Your task to perform on an android device: Add "bose soundsport free" to the cart on bestbuy, then select checkout. Image 0: 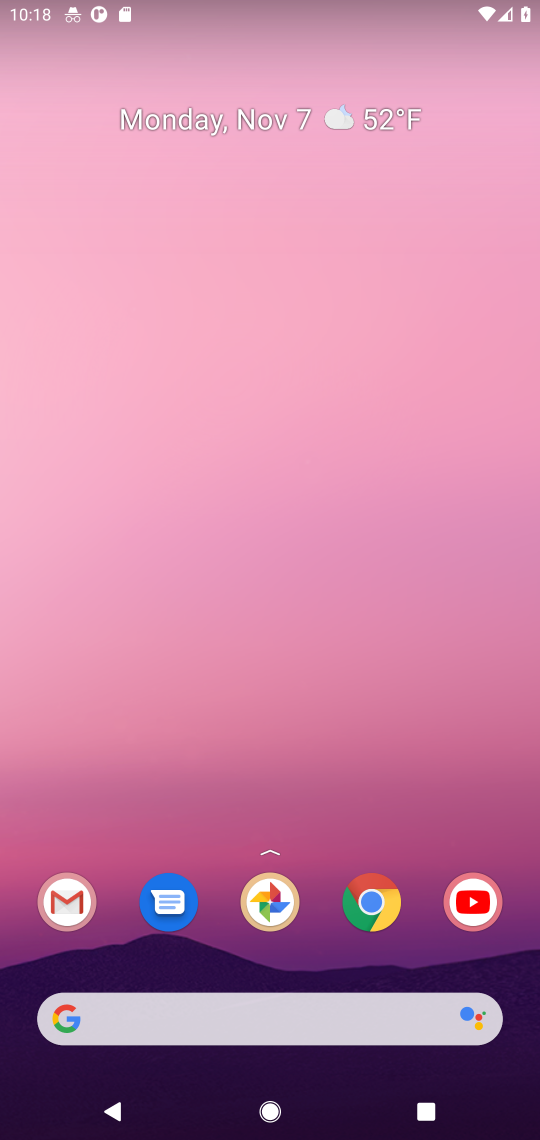
Step 0: click (368, 905)
Your task to perform on an android device: Add "bose soundsport free" to the cart on bestbuy, then select checkout. Image 1: 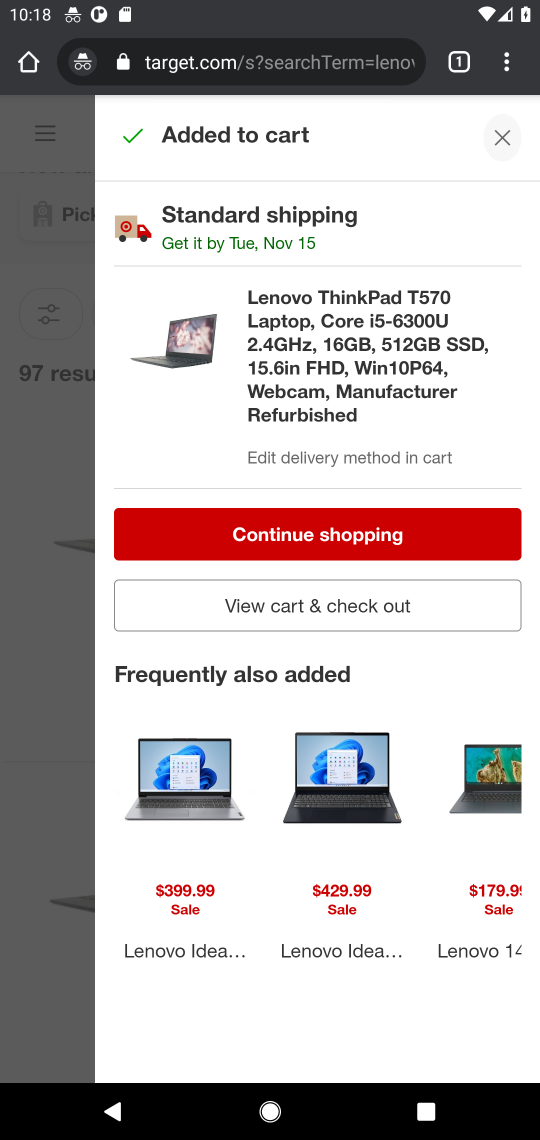
Step 1: click (226, 67)
Your task to perform on an android device: Add "bose soundsport free" to the cart on bestbuy, then select checkout. Image 2: 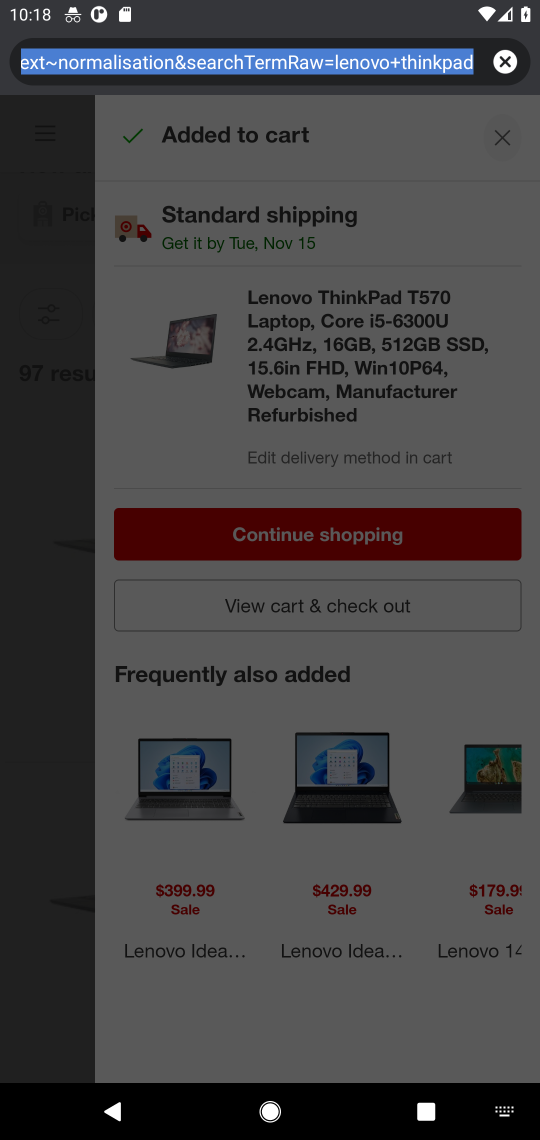
Step 2: type "bestbuy.com"
Your task to perform on an android device: Add "bose soundsport free" to the cart on bestbuy, then select checkout. Image 3: 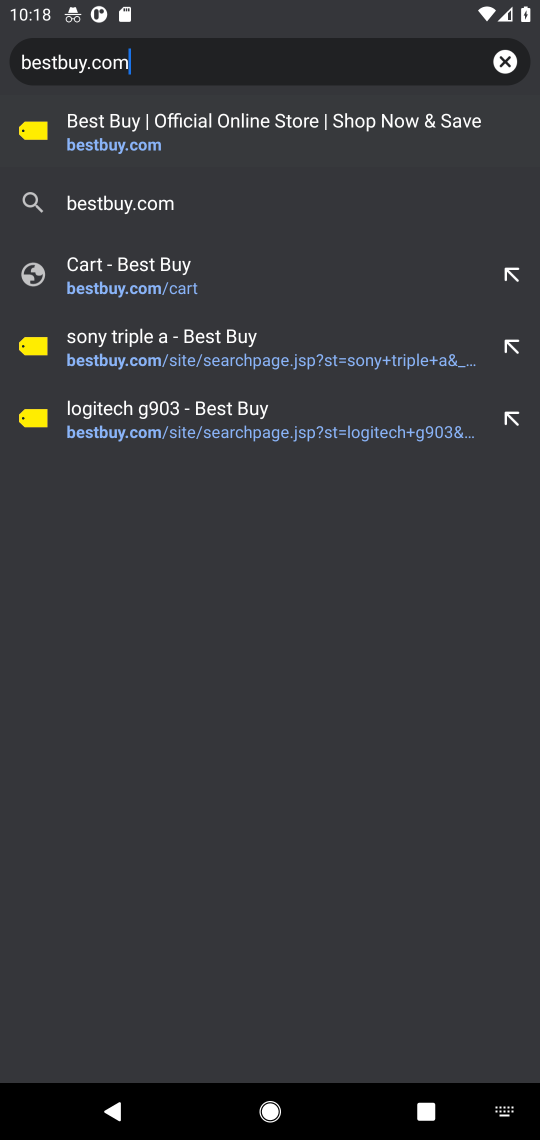
Step 3: click (93, 134)
Your task to perform on an android device: Add "bose soundsport free" to the cart on bestbuy, then select checkout. Image 4: 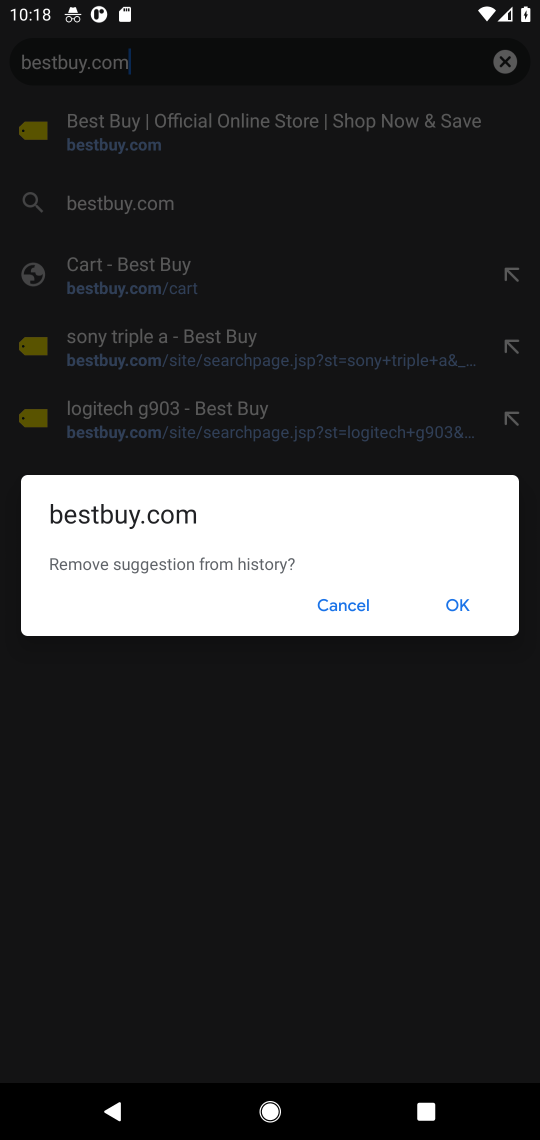
Step 4: click (335, 603)
Your task to perform on an android device: Add "bose soundsport free" to the cart on bestbuy, then select checkout. Image 5: 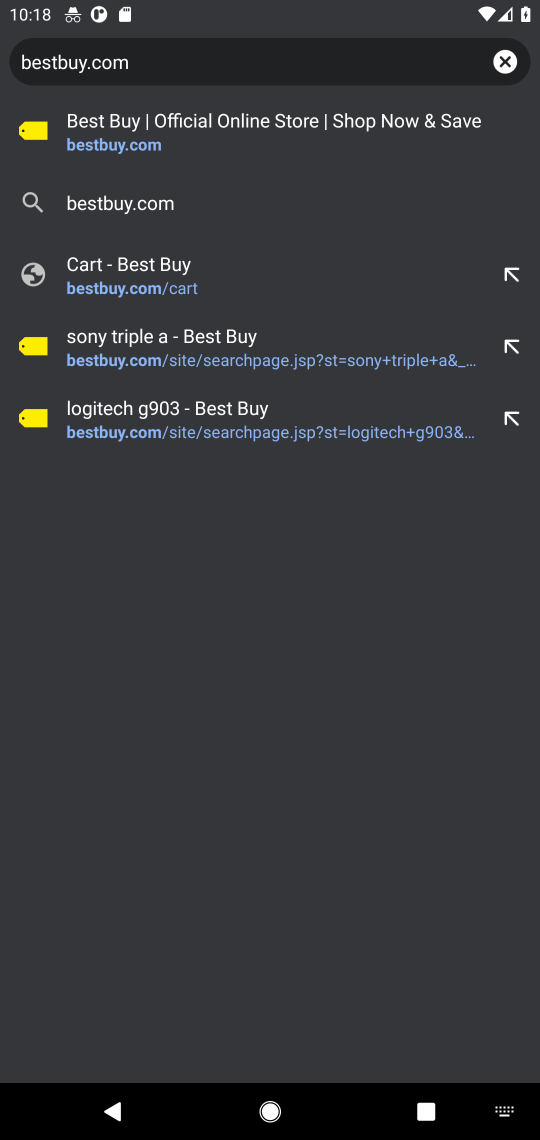
Step 5: click (112, 154)
Your task to perform on an android device: Add "bose soundsport free" to the cart on bestbuy, then select checkout. Image 6: 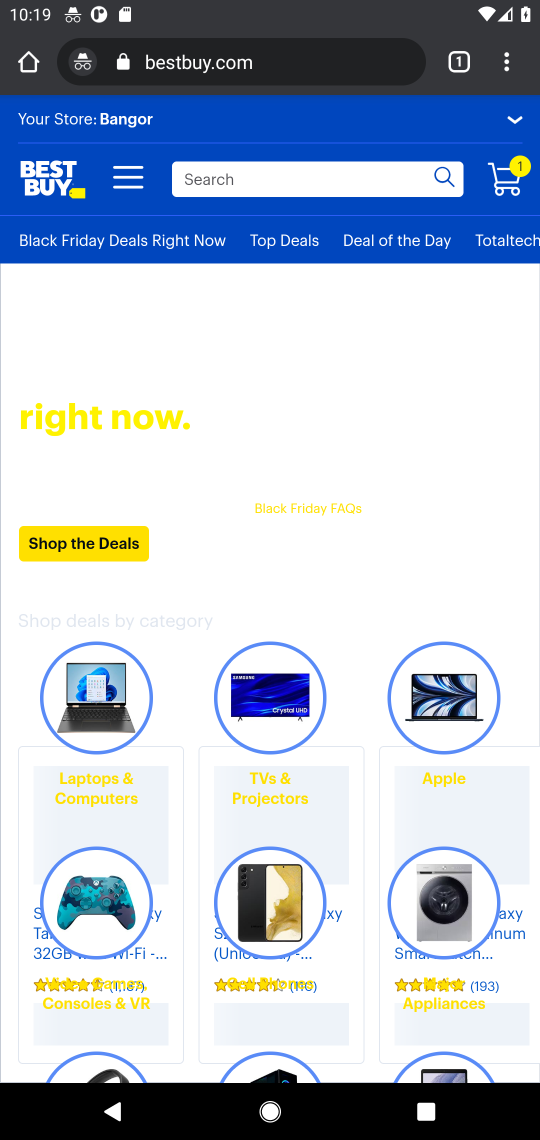
Step 6: click (213, 178)
Your task to perform on an android device: Add "bose soundsport free" to the cart on bestbuy, then select checkout. Image 7: 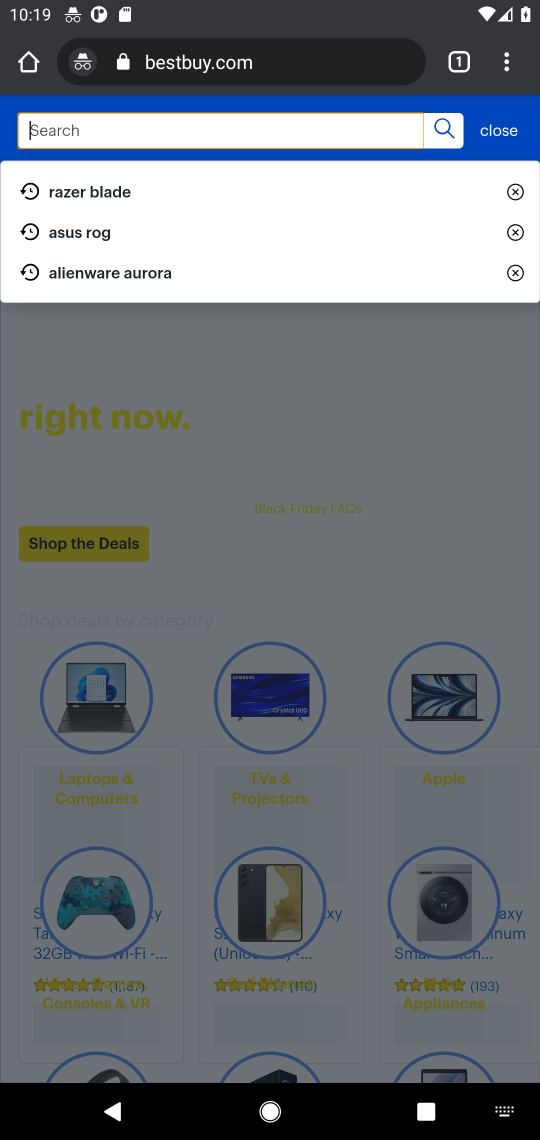
Step 7: type "bose soundsport free"
Your task to perform on an android device: Add "bose soundsport free" to the cart on bestbuy, then select checkout. Image 8: 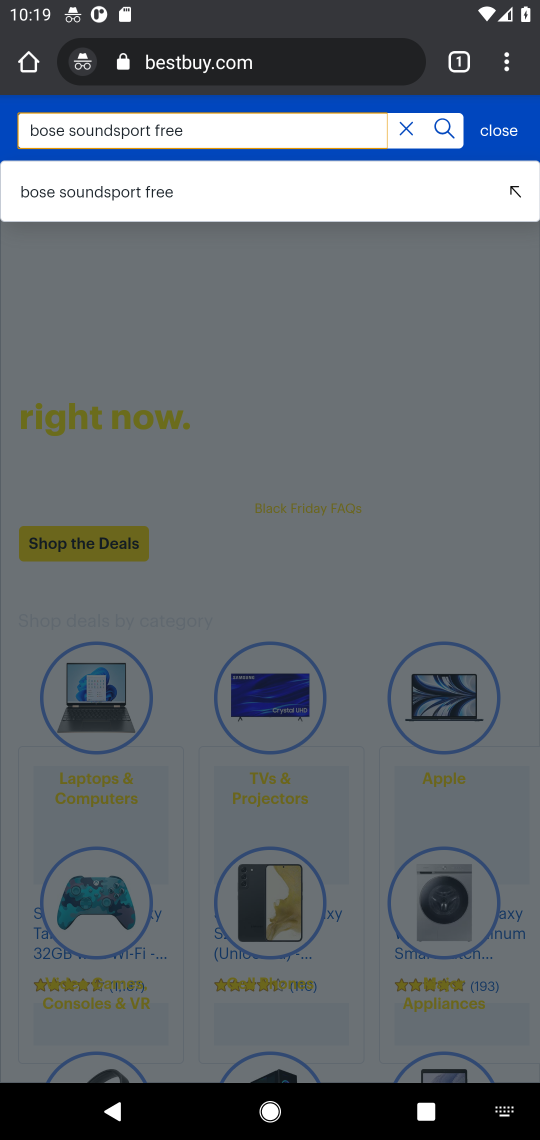
Step 8: click (85, 193)
Your task to perform on an android device: Add "bose soundsport free" to the cart on bestbuy, then select checkout. Image 9: 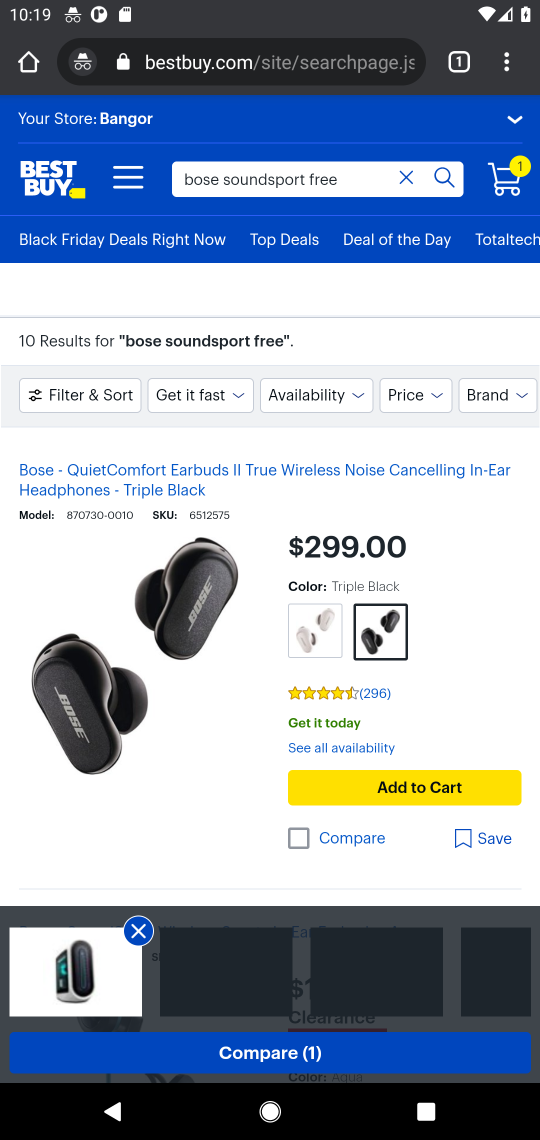
Step 9: drag from (178, 760) to (173, 451)
Your task to perform on an android device: Add "bose soundsport free" to the cart on bestbuy, then select checkout. Image 10: 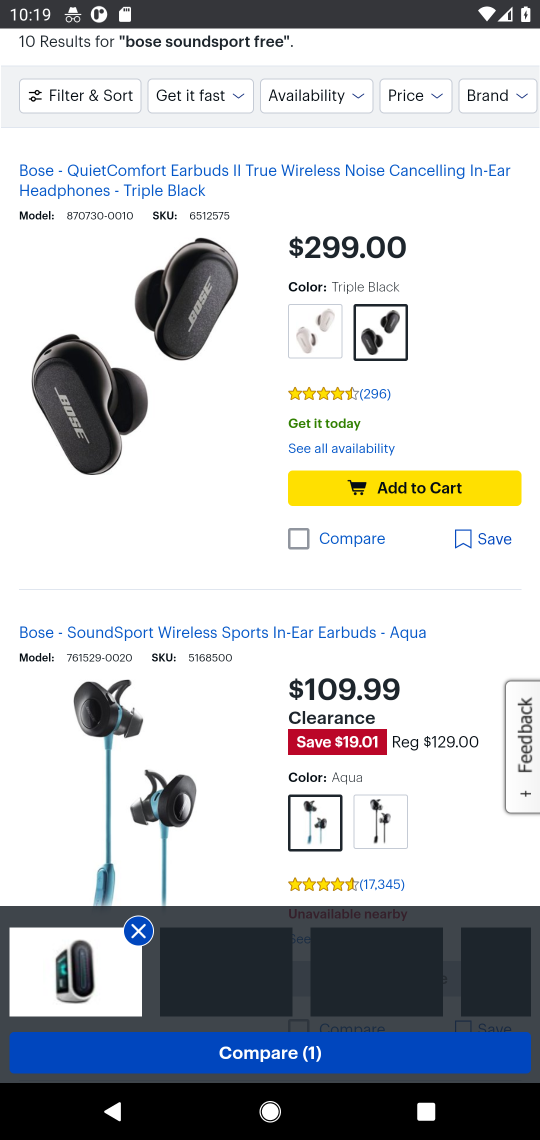
Step 10: drag from (166, 754) to (157, 475)
Your task to perform on an android device: Add "bose soundsport free" to the cart on bestbuy, then select checkout. Image 11: 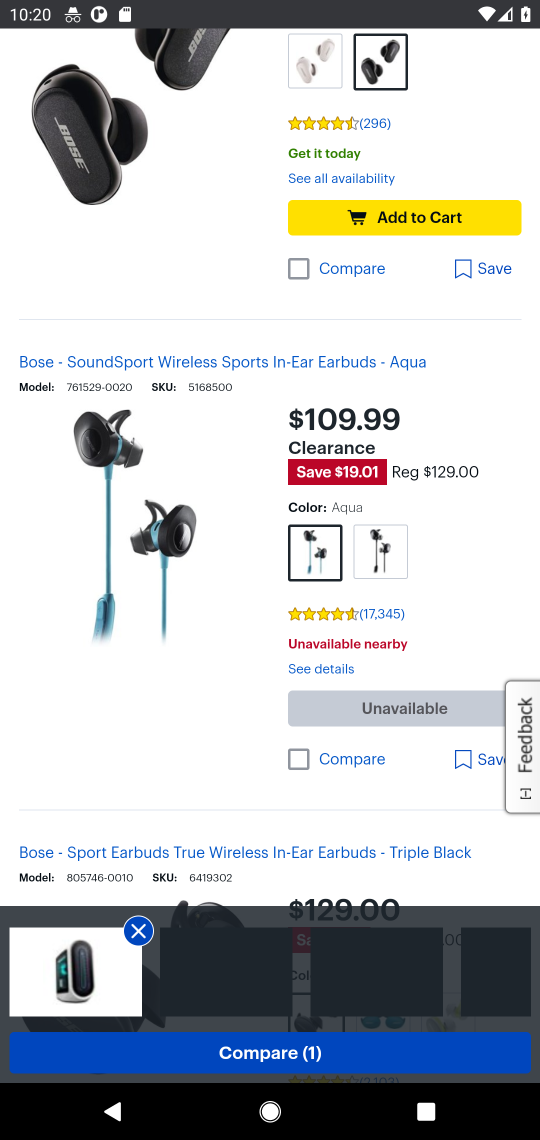
Step 11: drag from (179, 596) to (220, 134)
Your task to perform on an android device: Add "bose soundsport free" to the cart on bestbuy, then select checkout. Image 12: 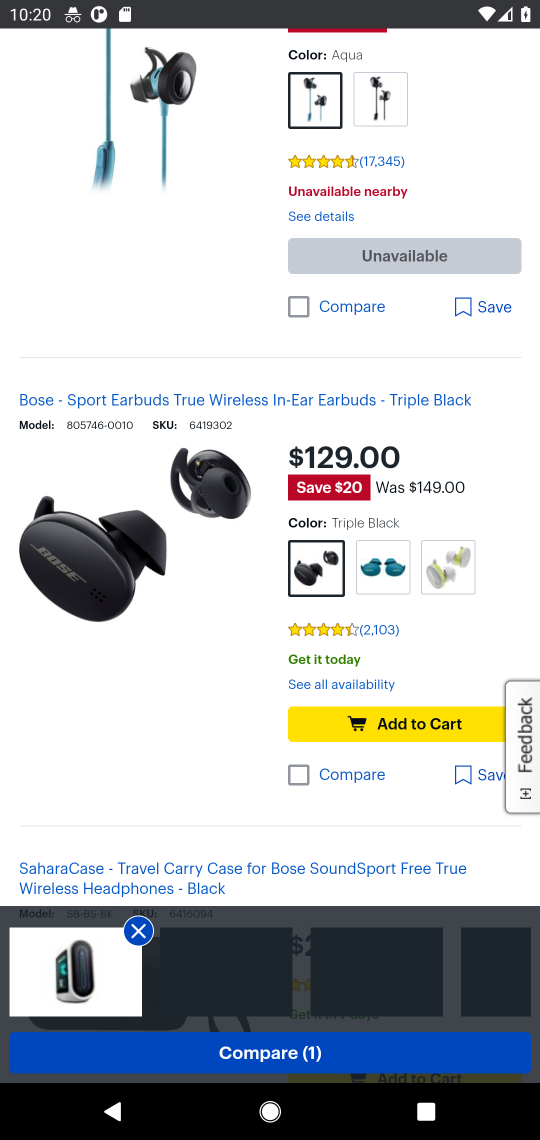
Step 12: drag from (179, 668) to (172, 162)
Your task to perform on an android device: Add "bose soundsport free" to the cart on bestbuy, then select checkout. Image 13: 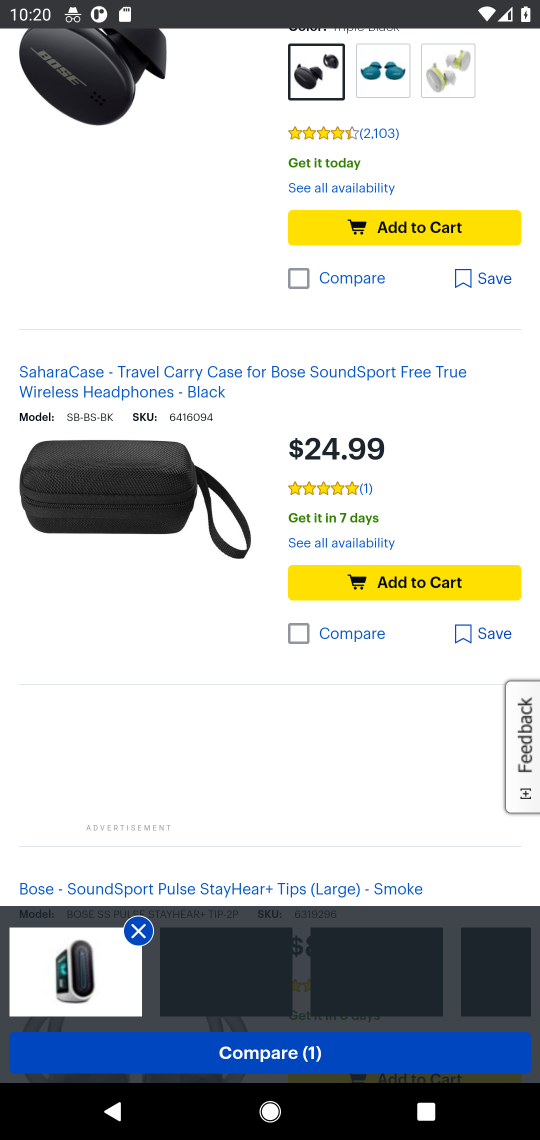
Step 13: drag from (139, 588) to (119, 131)
Your task to perform on an android device: Add "bose soundsport free" to the cart on bestbuy, then select checkout. Image 14: 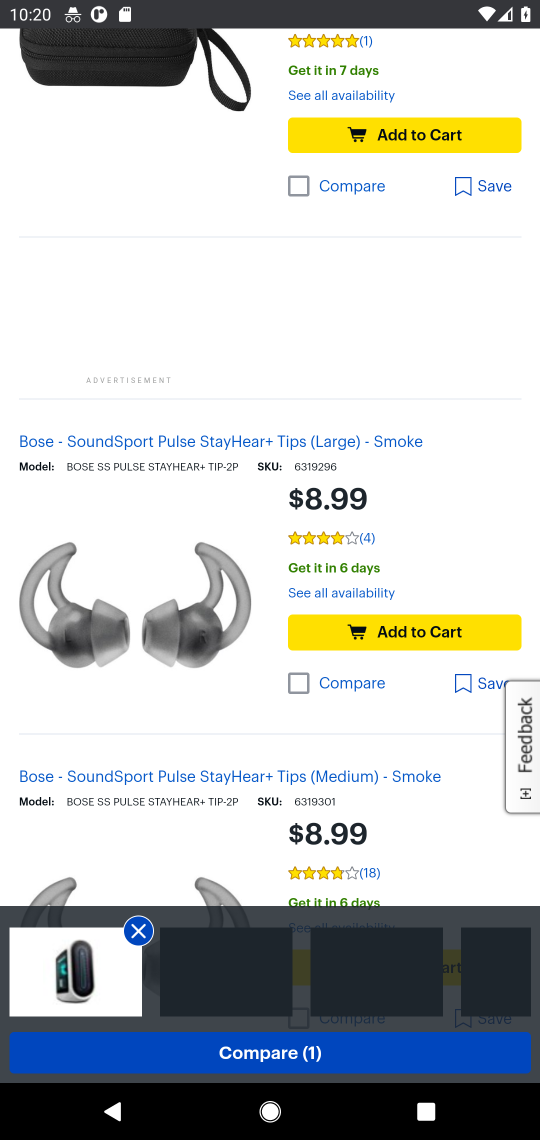
Step 14: drag from (140, 622) to (116, 346)
Your task to perform on an android device: Add "bose soundsport free" to the cart on bestbuy, then select checkout. Image 15: 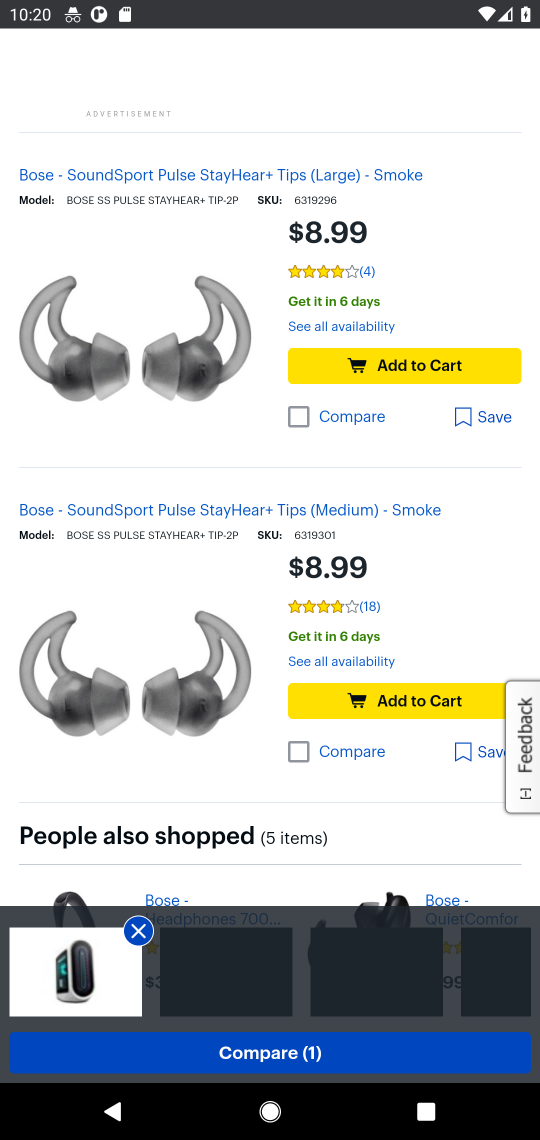
Step 15: drag from (100, 687) to (154, 269)
Your task to perform on an android device: Add "bose soundsport free" to the cart on bestbuy, then select checkout. Image 16: 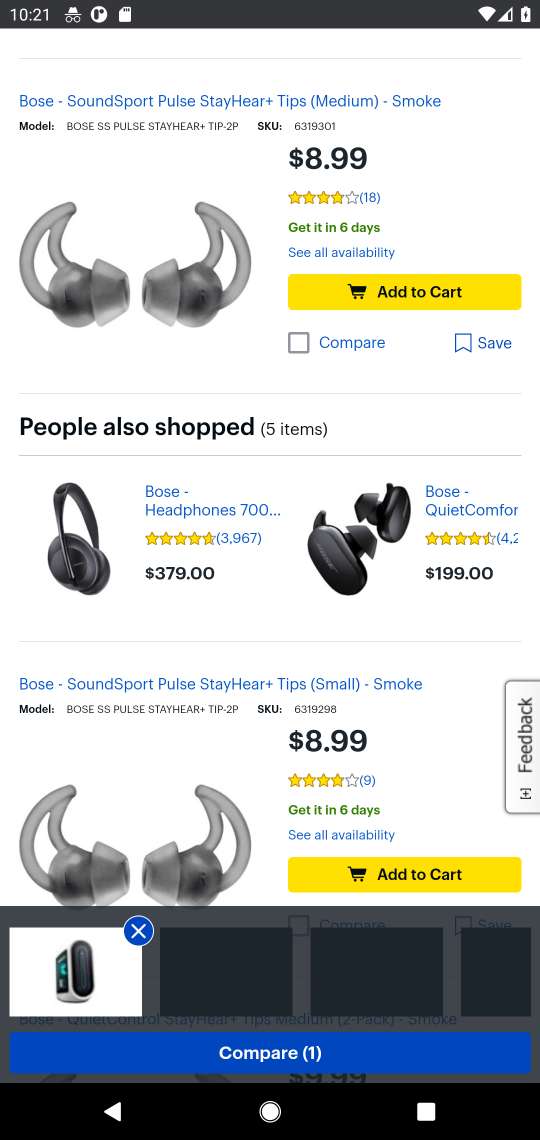
Step 16: drag from (142, 784) to (148, 187)
Your task to perform on an android device: Add "bose soundsport free" to the cart on bestbuy, then select checkout. Image 17: 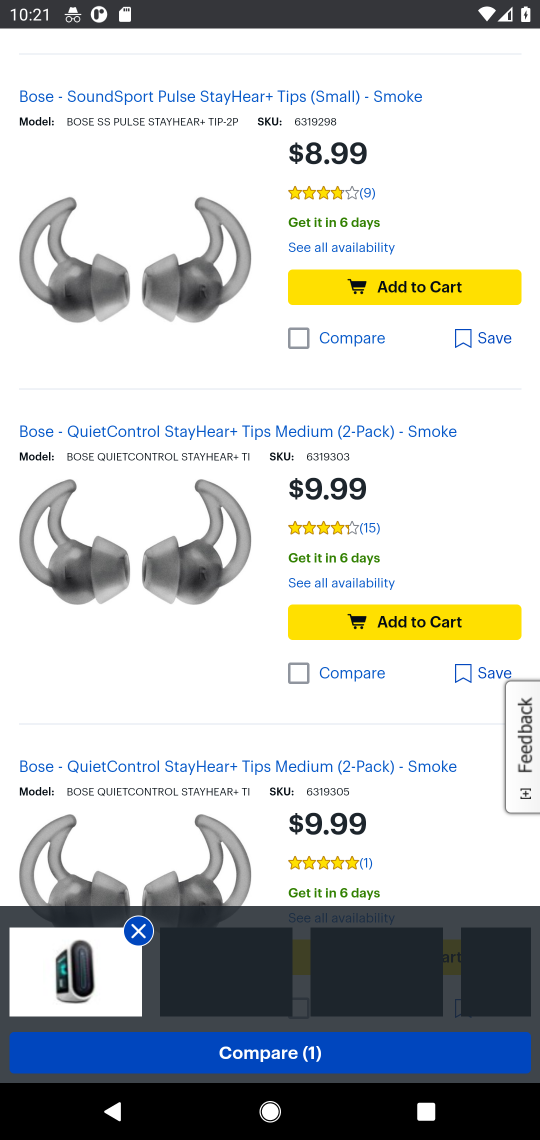
Step 17: drag from (115, 810) to (135, 263)
Your task to perform on an android device: Add "bose soundsport free" to the cart on bestbuy, then select checkout. Image 18: 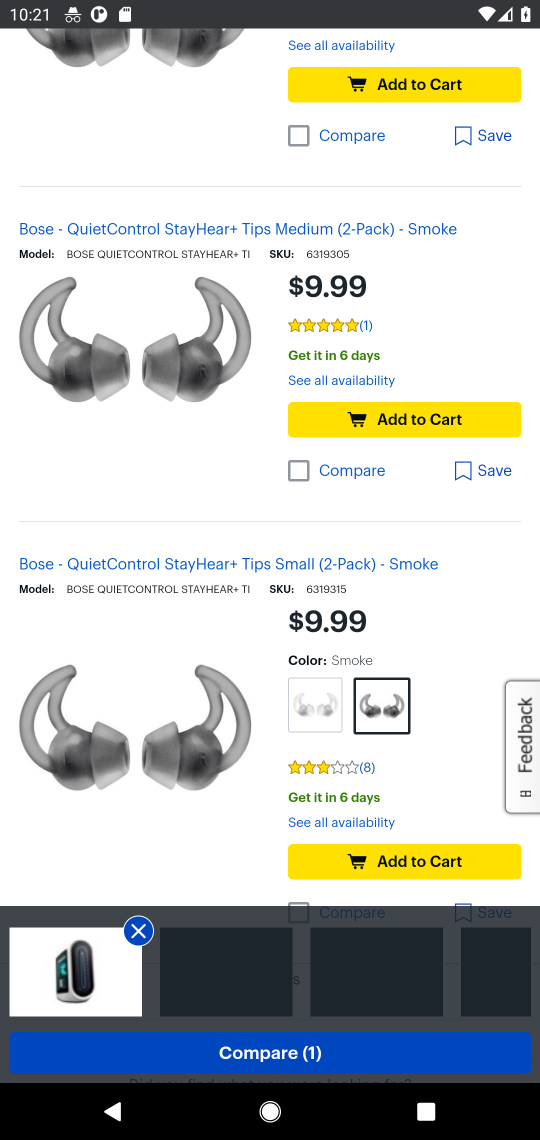
Step 18: drag from (135, 260) to (117, 790)
Your task to perform on an android device: Add "bose soundsport free" to the cart on bestbuy, then select checkout. Image 19: 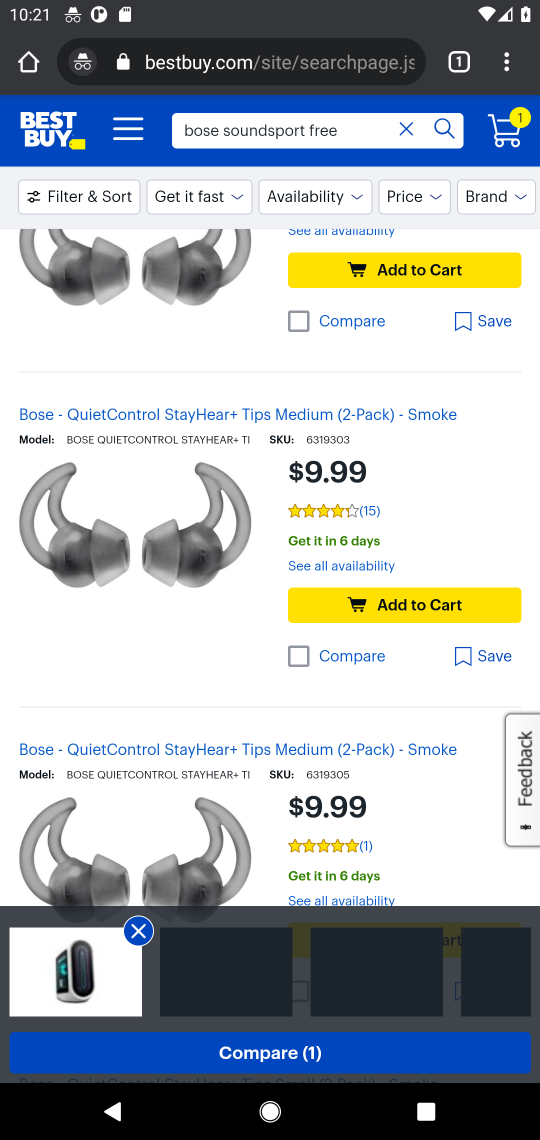
Step 19: drag from (164, 373) to (163, 745)
Your task to perform on an android device: Add "bose soundsport free" to the cart on bestbuy, then select checkout. Image 20: 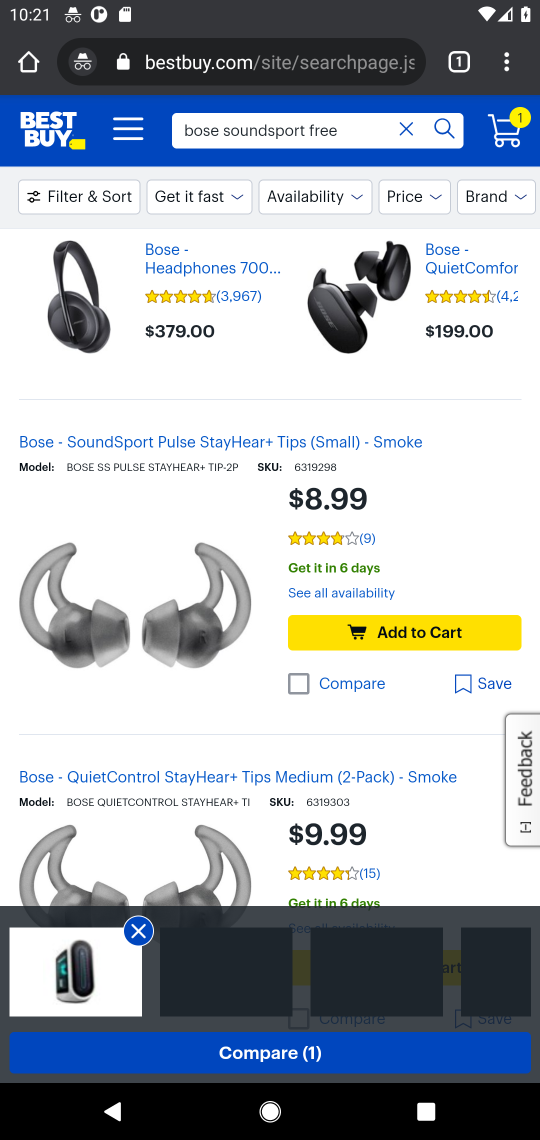
Step 20: drag from (157, 352) to (116, 757)
Your task to perform on an android device: Add "bose soundsport free" to the cart on bestbuy, then select checkout. Image 21: 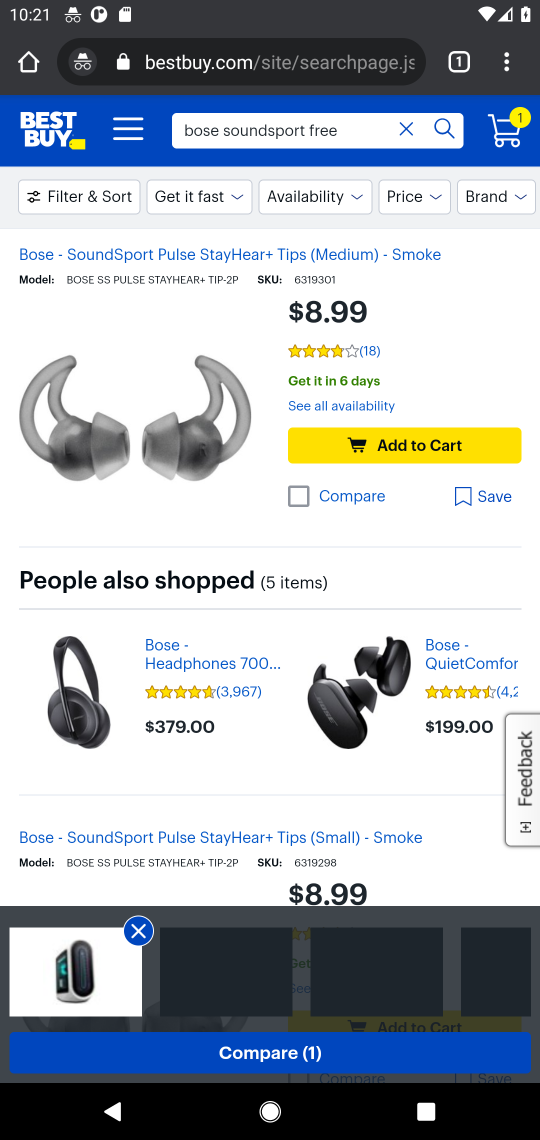
Step 21: drag from (131, 337) to (119, 772)
Your task to perform on an android device: Add "bose soundsport free" to the cart on bestbuy, then select checkout. Image 22: 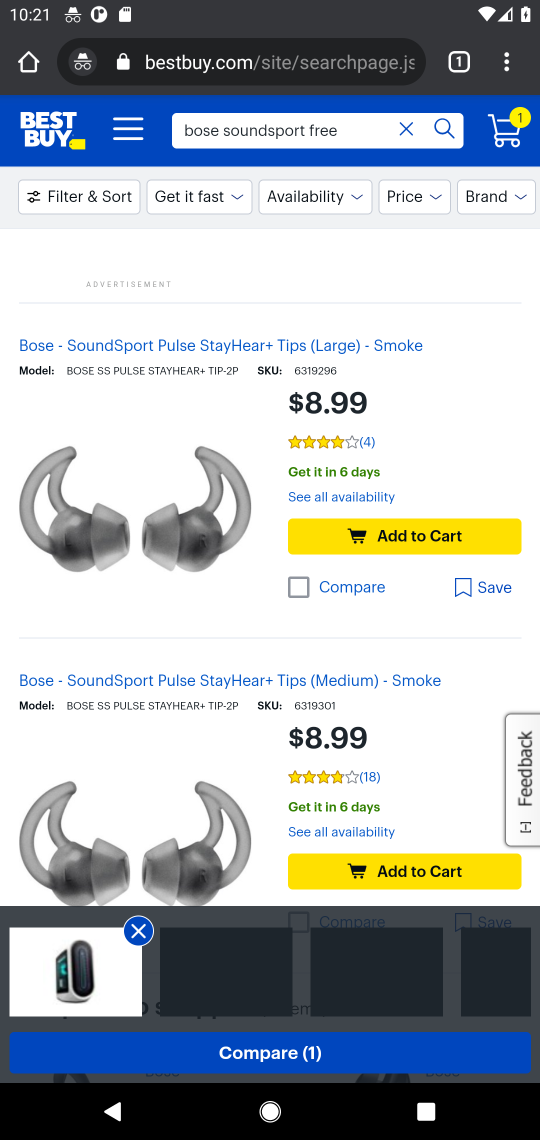
Step 22: drag from (146, 446) to (95, 797)
Your task to perform on an android device: Add "bose soundsport free" to the cart on bestbuy, then select checkout. Image 23: 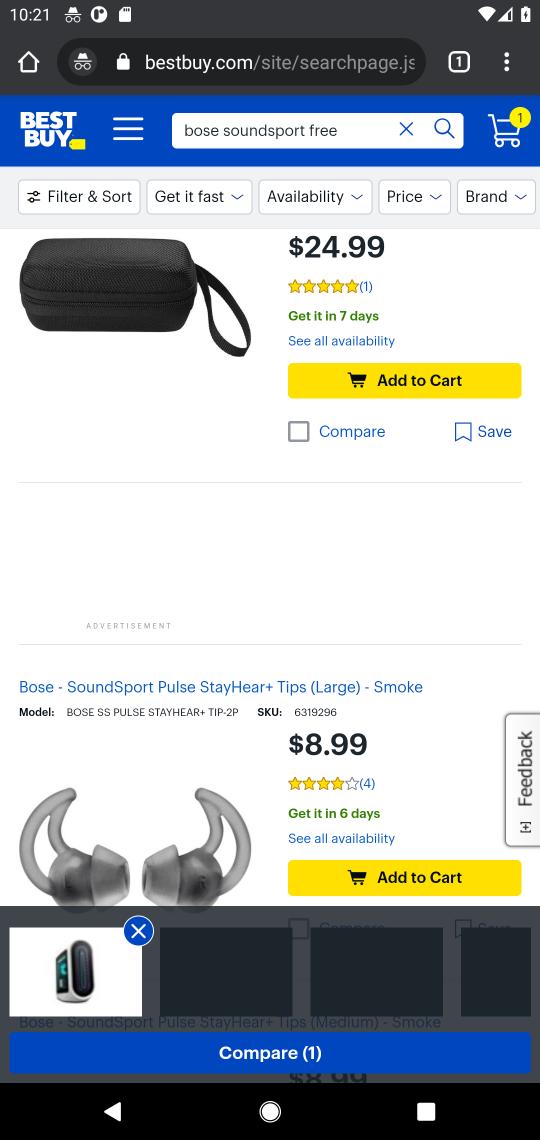
Step 23: drag from (164, 402) to (167, 622)
Your task to perform on an android device: Add "bose soundsport free" to the cart on bestbuy, then select checkout. Image 24: 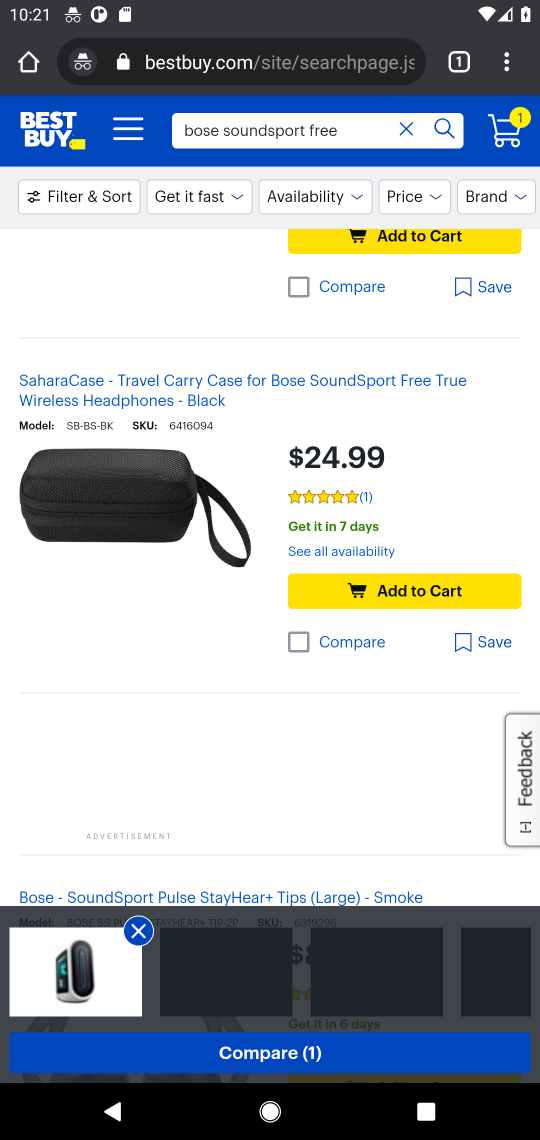
Step 24: click (440, 581)
Your task to perform on an android device: Add "bose soundsport free" to the cart on bestbuy, then select checkout. Image 25: 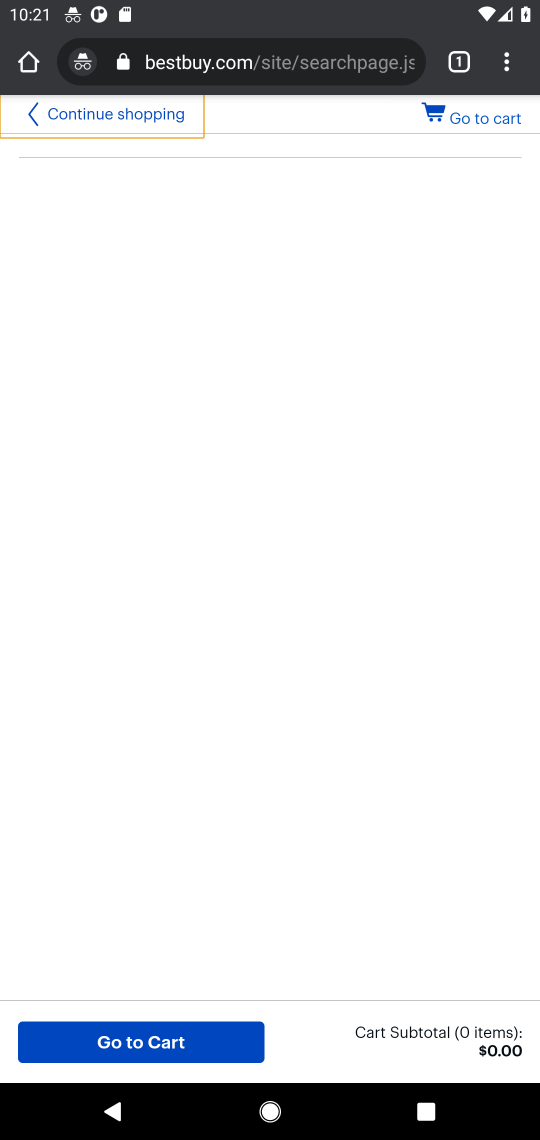
Step 25: click (498, 134)
Your task to perform on an android device: Add "bose soundsport free" to the cart on bestbuy, then select checkout. Image 26: 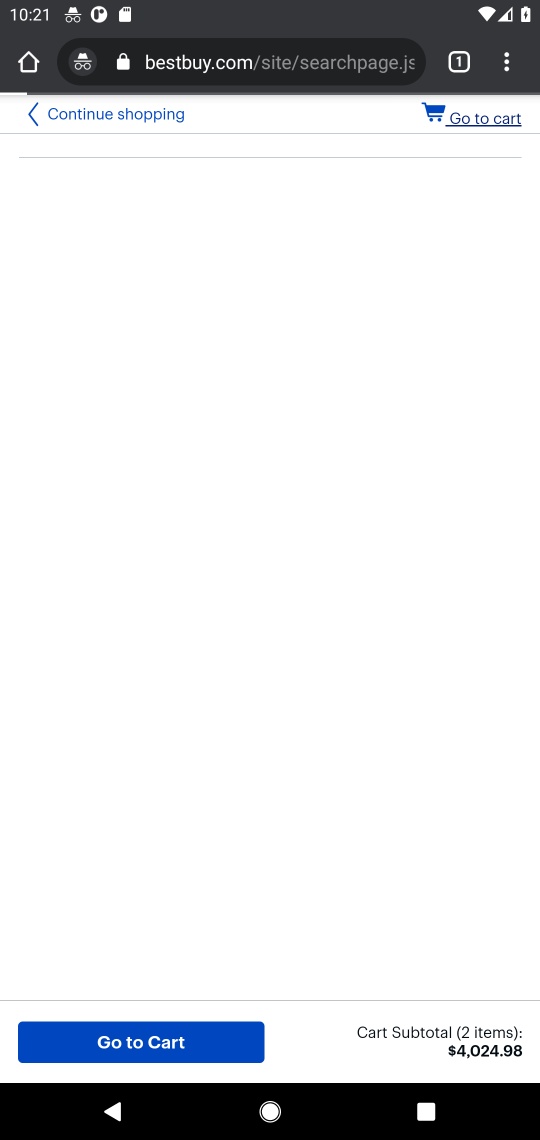
Step 26: click (494, 123)
Your task to perform on an android device: Add "bose soundsport free" to the cart on bestbuy, then select checkout. Image 27: 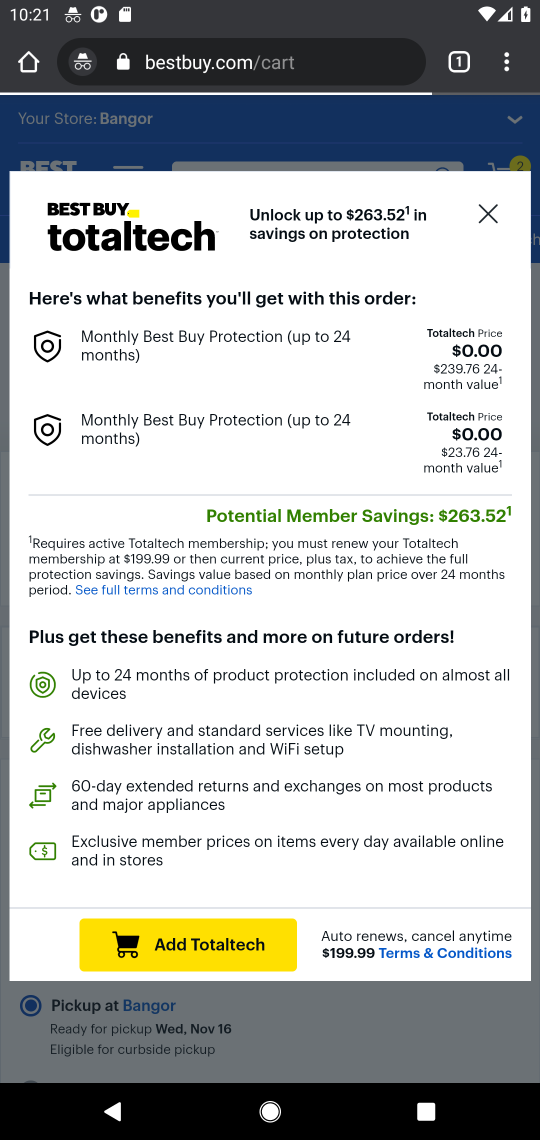
Step 27: click (490, 214)
Your task to perform on an android device: Add "bose soundsport free" to the cart on bestbuy, then select checkout. Image 28: 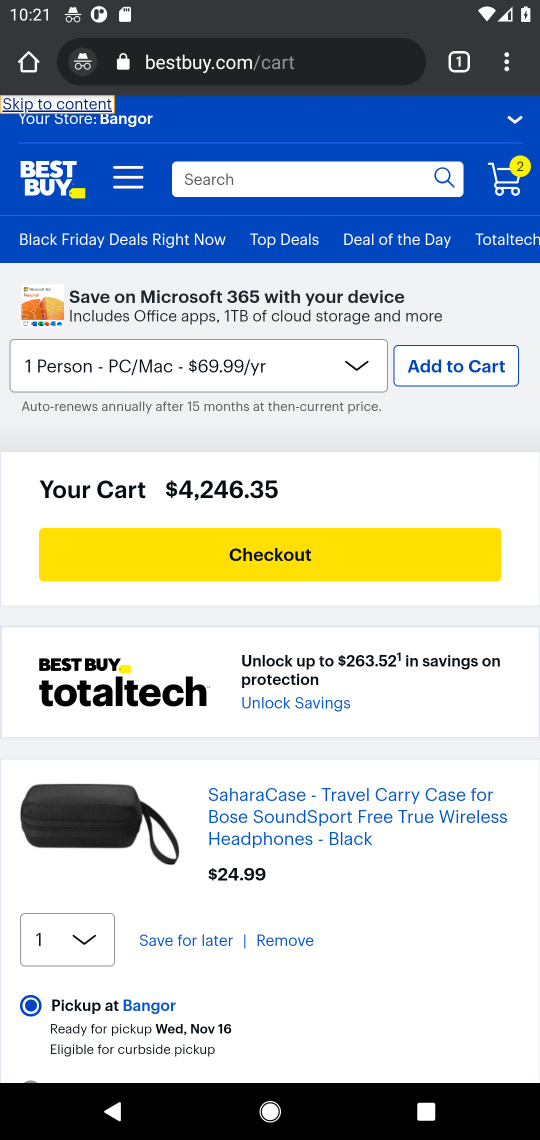
Step 28: click (254, 560)
Your task to perform on an android device: Add "bose soundsport free" to the cart on bestbuy, then select checkout. Image 29: 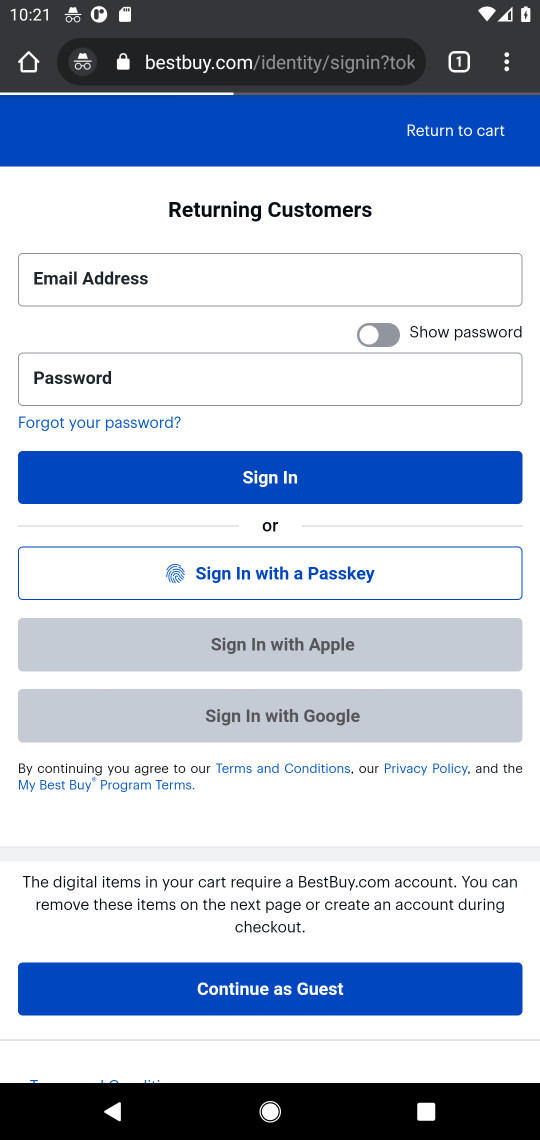
Step 29: task complete